Your task to perform on an android device: turn notification dots off Image 0: 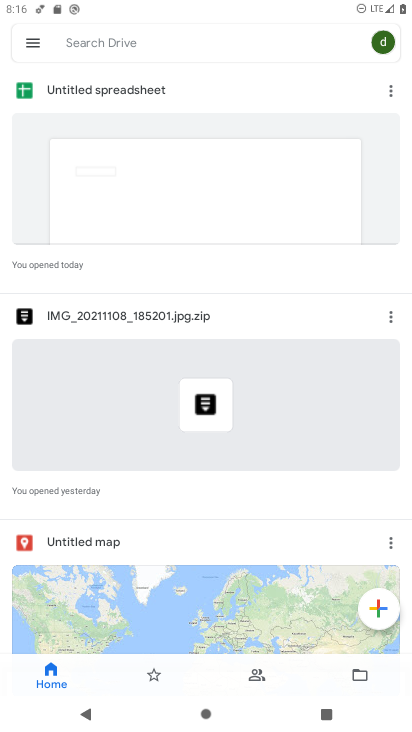
Step 0: press home button
Your task to perform on an android device: turn notification dots off Image 1: 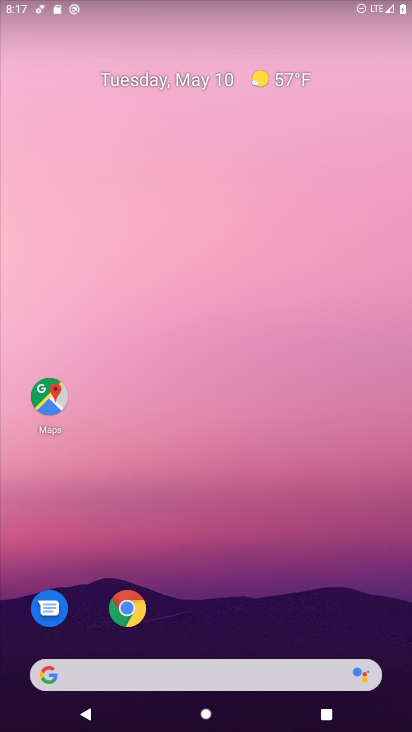
Step 1: drag from (353, 628) to (241, 60)
Your task to perform on an android device: turn notification dots off Image 2: 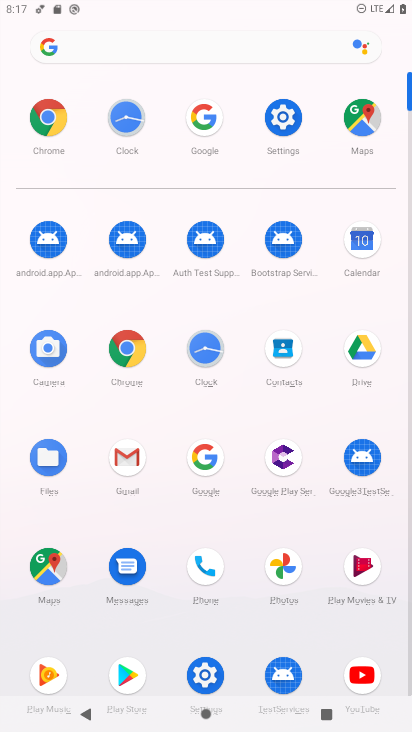
Step 2: click (279, 124)
Your task to perform on an android device: turn notification dots off Image 3: 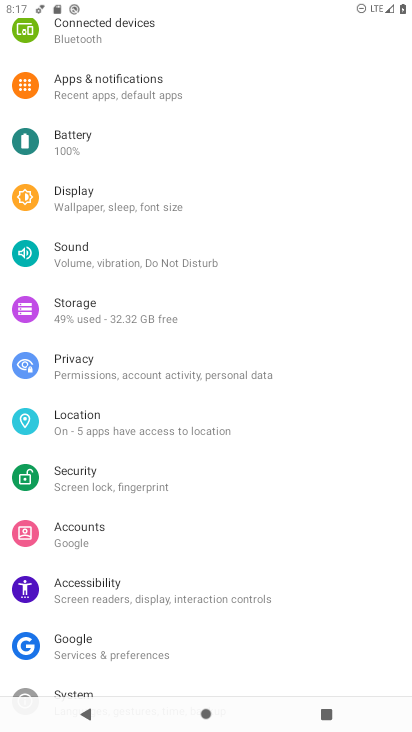
Step 3: click (204, 90)
Your task to perform on an android device: turn notification dots off Image 4: 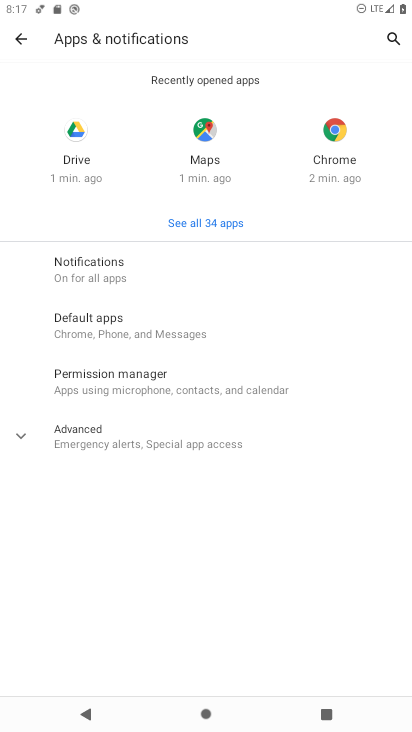
Step 4: click (169, 290)
Your task to perform on an android device: turn notification dots off Image 5: 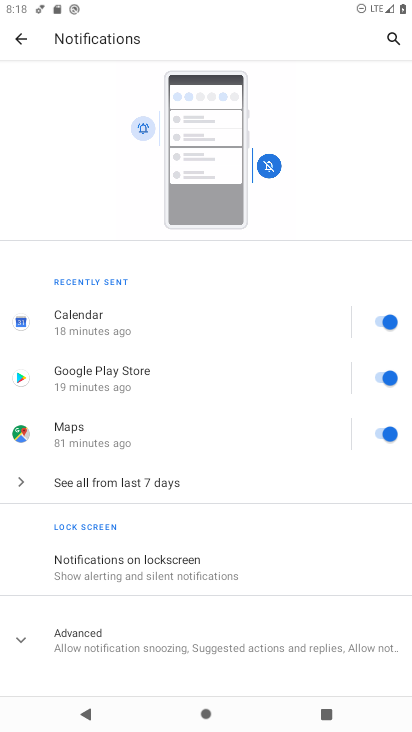
Step 5: click (107, 641)
Your task to perform on an android device: turn notification dots off Image 6: 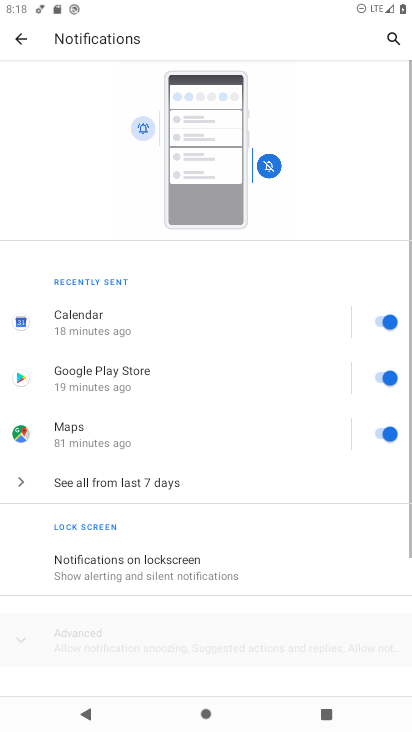
Step 6: drag from (125, 618) to (137, 197)
Your task to perform on an android device: turn notification dots off Image 7: 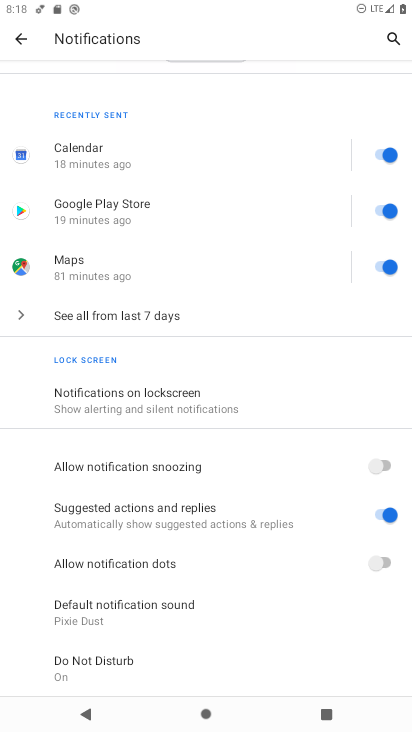
Step 7: click (194, 567)
Your task to perform on an android device: turn notification dots off Image 8: 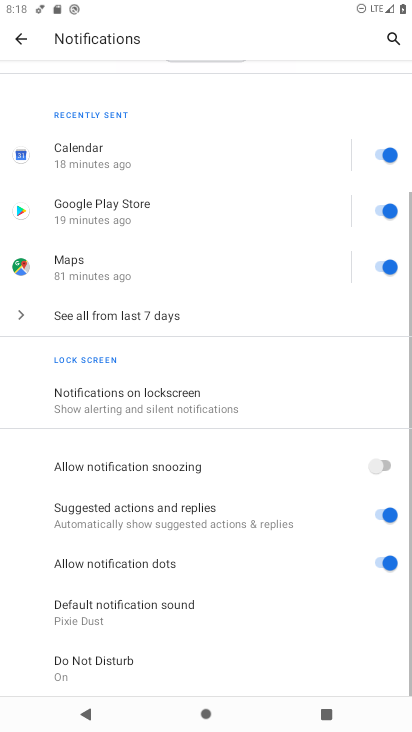
Step 8: click (194, 567)
Your task to perform on an android device: turn notification dots off Image 9: 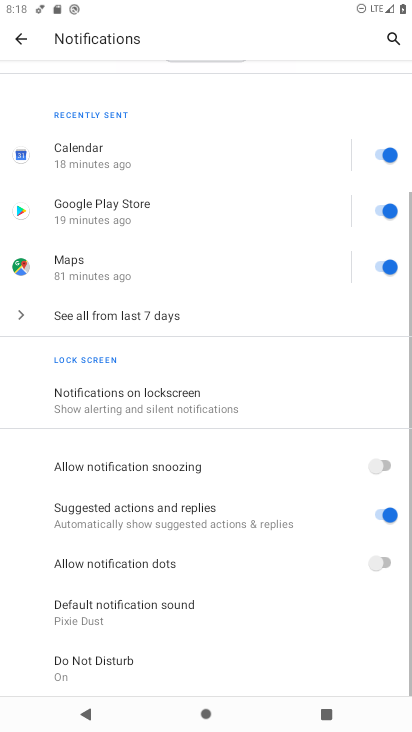
Step 9: task complete